Your task to perform on an android device: Open battery settings Image 0: 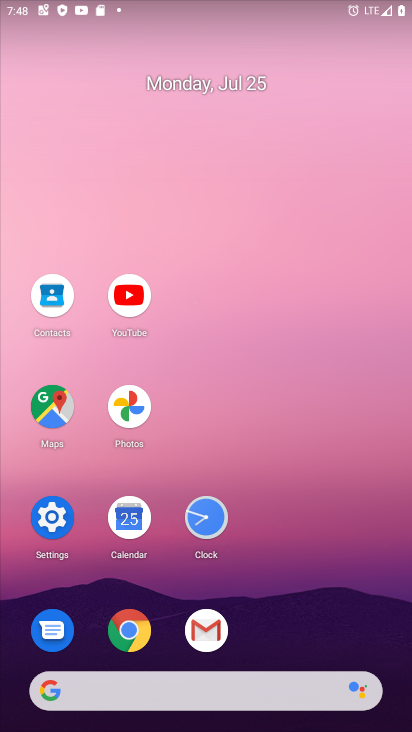
Step 0: click (52, 513)
Your task to perform on an android device: Open battery settings Image 1: 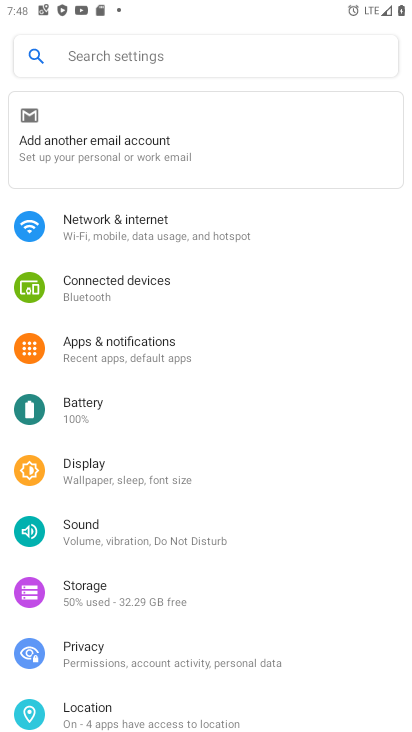
Step 1: click (79, 409)
Your task to perform on an android device: Open battery settings Image 2: 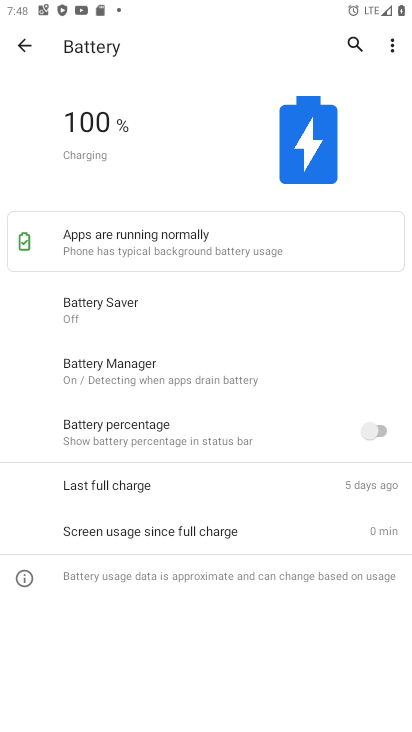
Step 2: task complete